Your task to perform on an android device: turn on improve location accuracy Image 0: 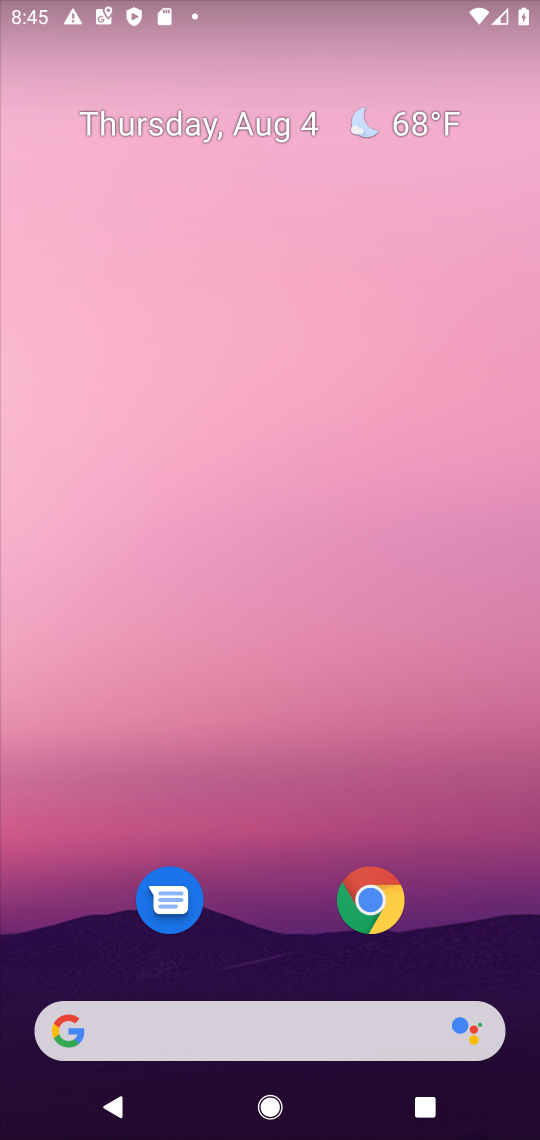
Step 0: drag from (232, 734) to (232, 262)
Your task to perform on an android device: turn on improve location accuracy Image 1: 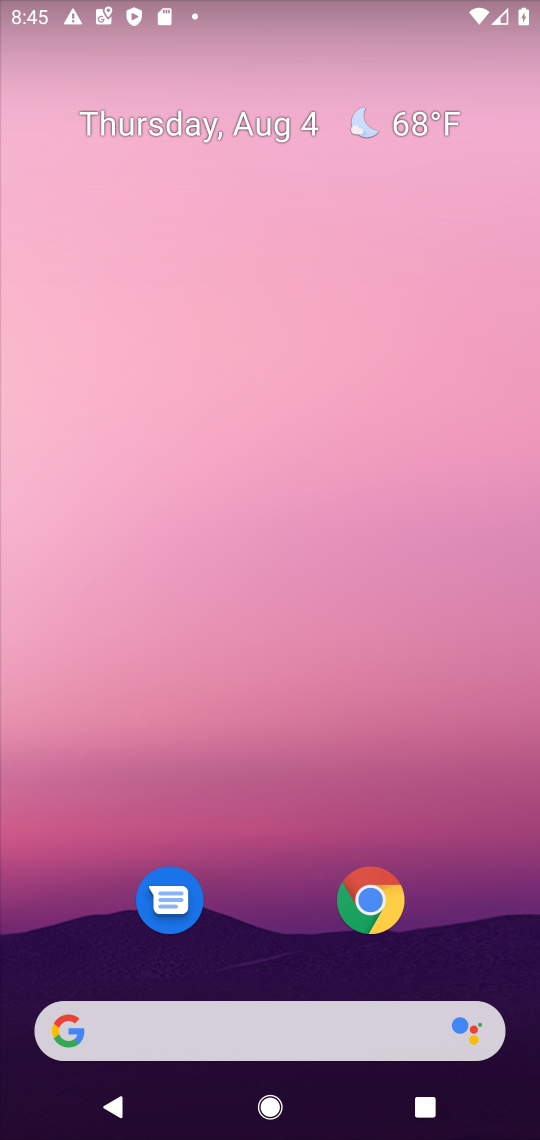
Step 1: drag from (282, 683) to (295, 206)
Your task to perform on an android device: turn on improve location accuracy Image 2: 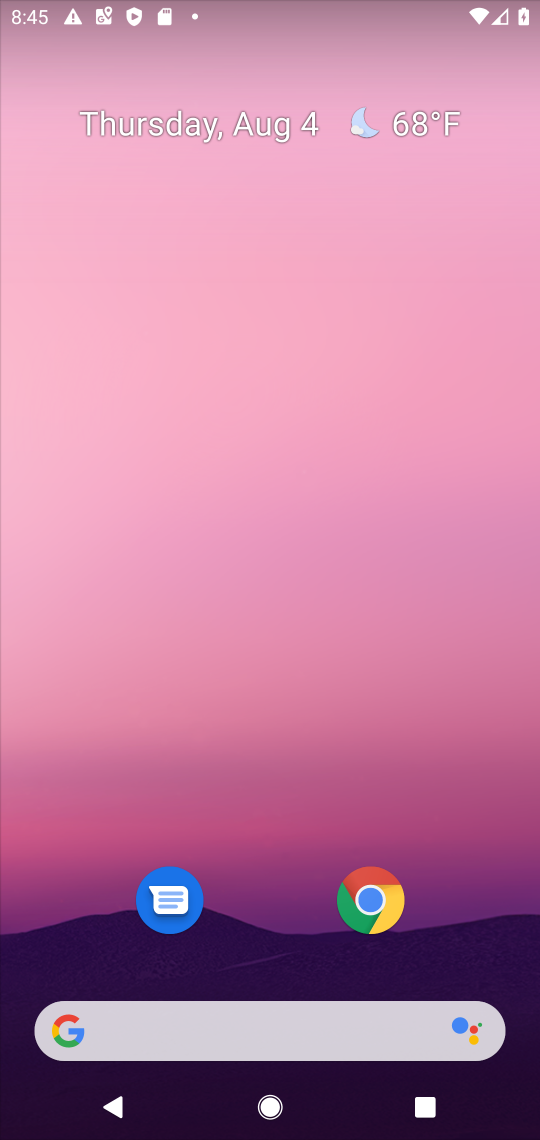
Step 2: drag from (238, 674) to (223, 12)
Your task to perform on an android device: turn on improve location accuracy Image 3: 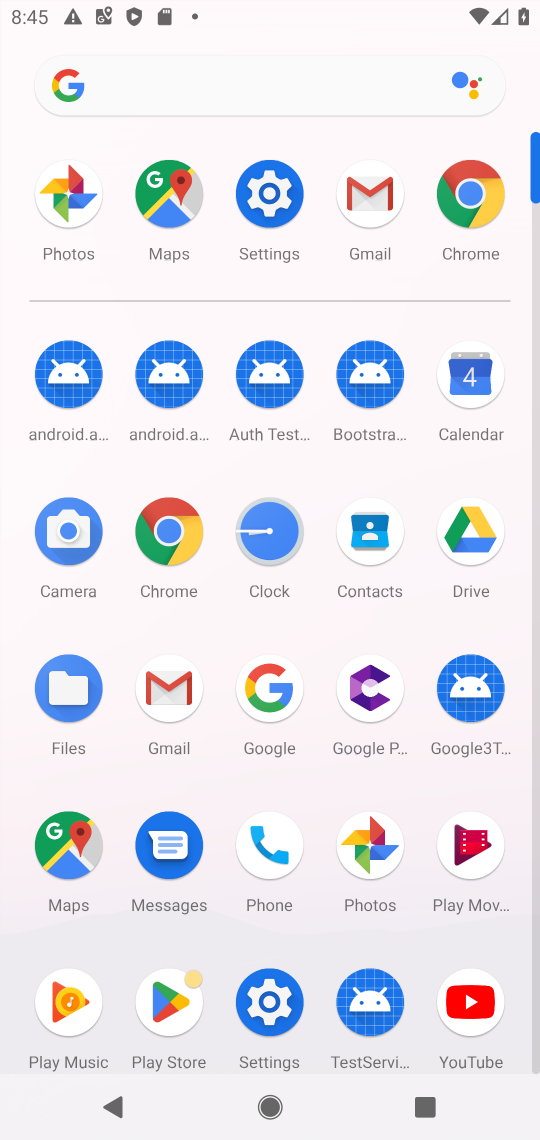
Step 3: click (265, 194)
Your task to perform on an android device: turn on improve location accuracy Image 4: 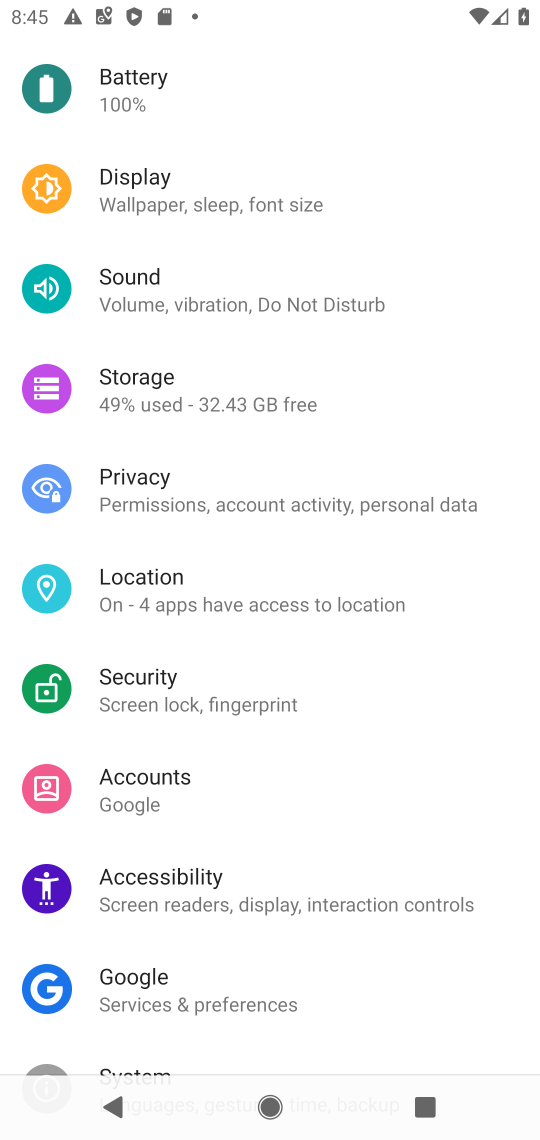
Step 4: click (115, 593)
Your task to perform on an android device: turn on improve location accuracy Image 5: 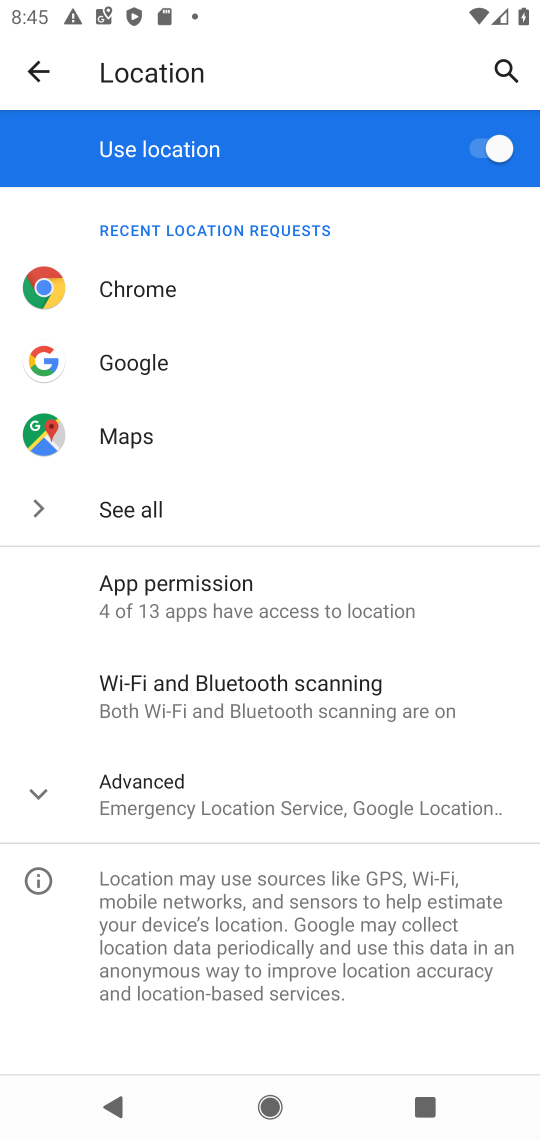
Step 5: click (167, 794)
Your task to perform on an android device: turn on improve location accuracy Image 6: 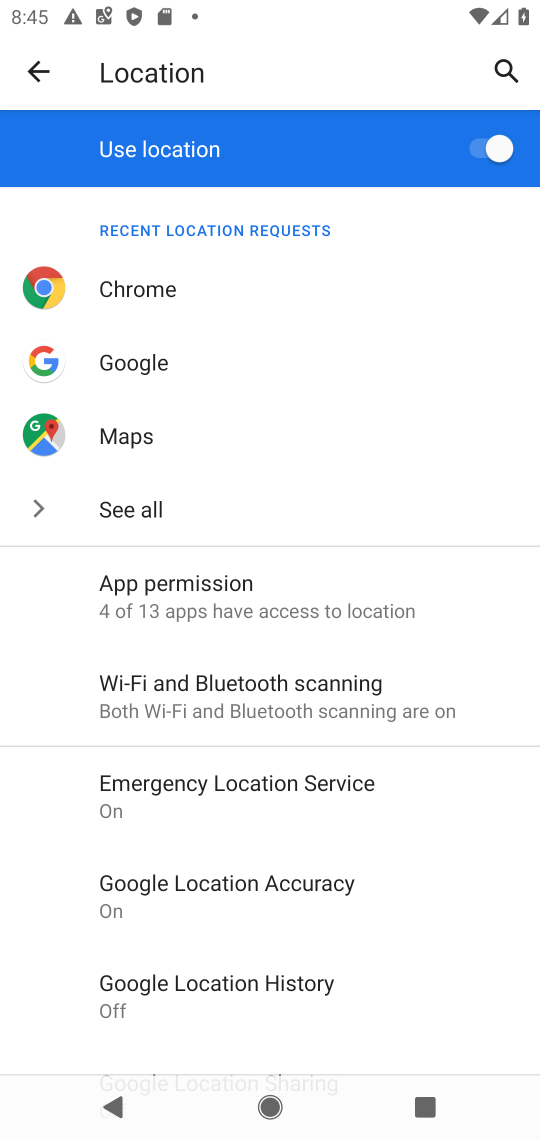
Step 6: click (240, 878)
Your task to perform on an android device: turn on improve location accuracy Image 7: 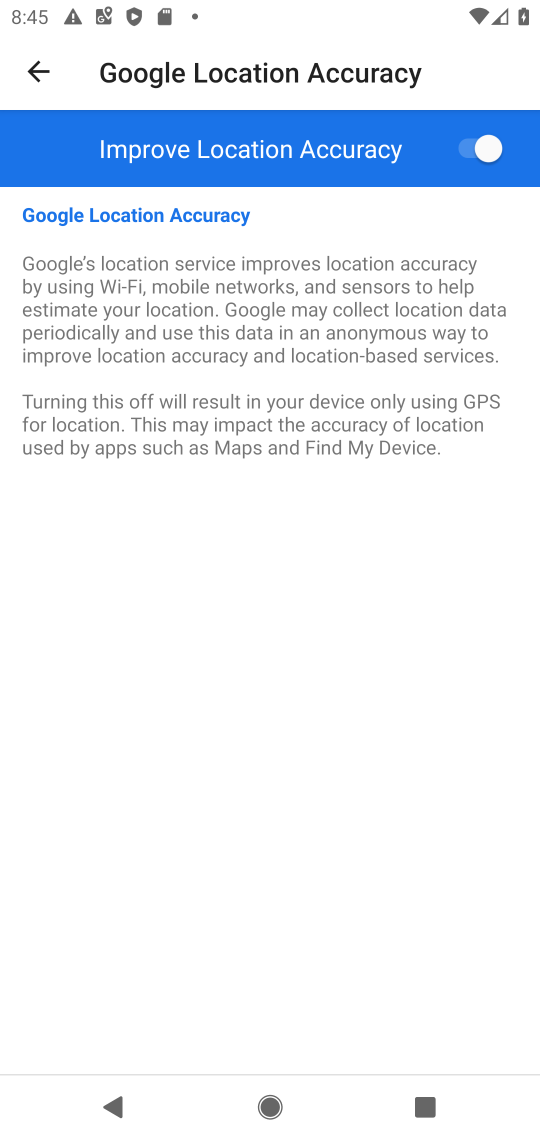
Step 7: task complete